Your task to perform on an android device: turn off sleep mode Image 0: 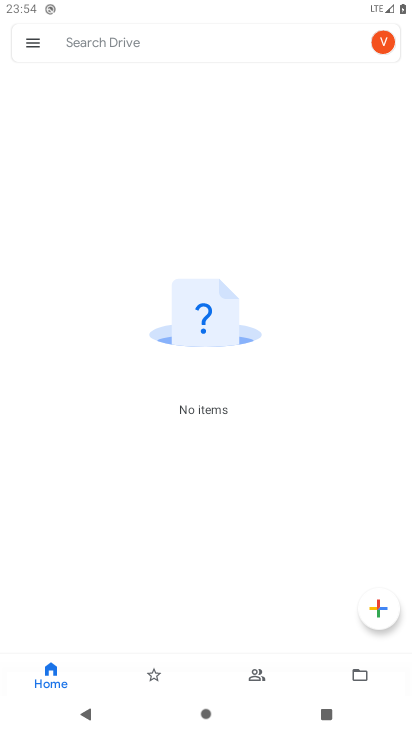
Step 0: press home button
Your task to perform on an android device: turn off sleep mode Image 1: 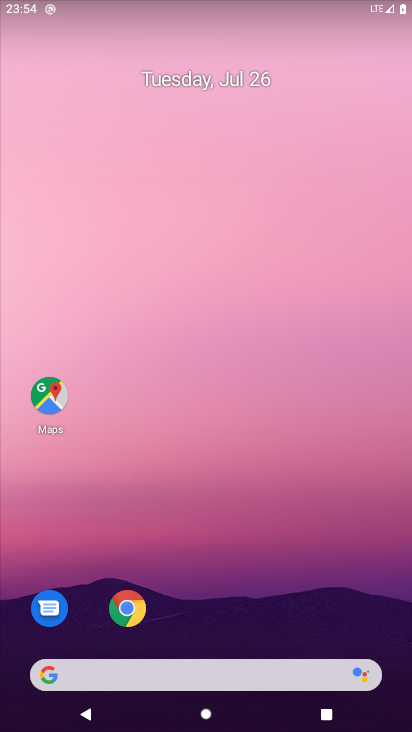
Step 1: drag from (277, 593) to (313, 101)
Your task to perform on an android device: turn off sleep mode Image 2: 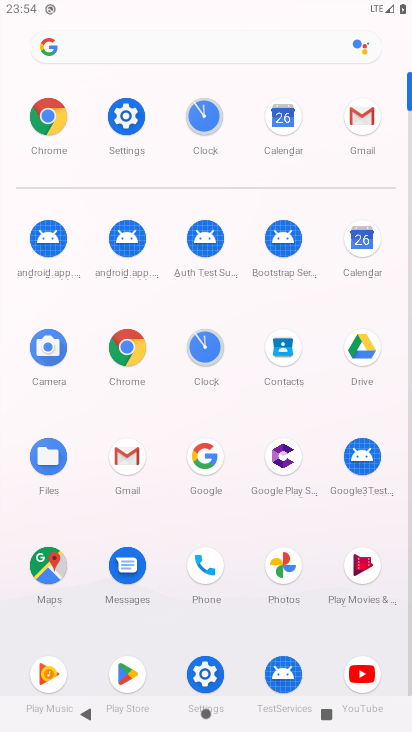
Step 2: click (128, 108)
Your task to perform on an android device: turn off sleep mode Image 3: 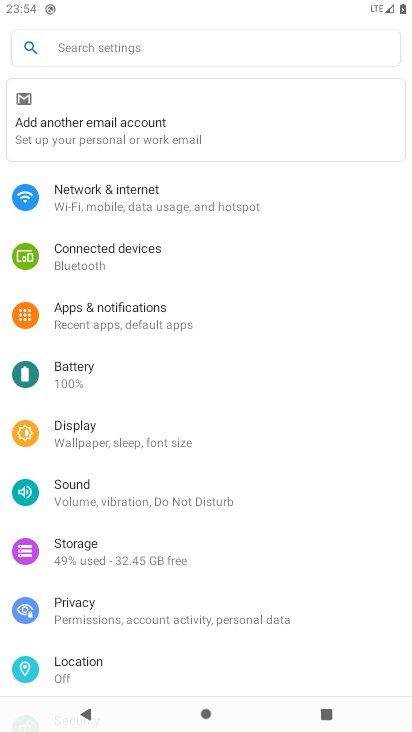
Step 3: click (87, 426)
Your task to perform on an android device: turn off sleep mode Image 4: 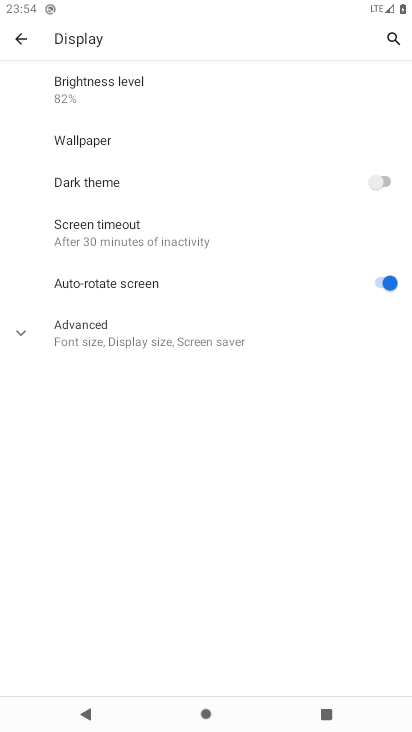
Step 4: click (23, 325)
Your task to perform on an android device: turn off sleep mode Image 5: 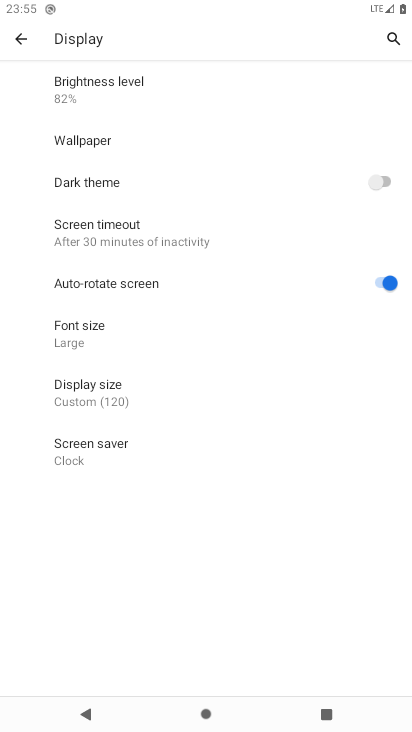
Step 5: task complete